Your task to perform on an android device: add a label to a message in the gmail app Image 0: 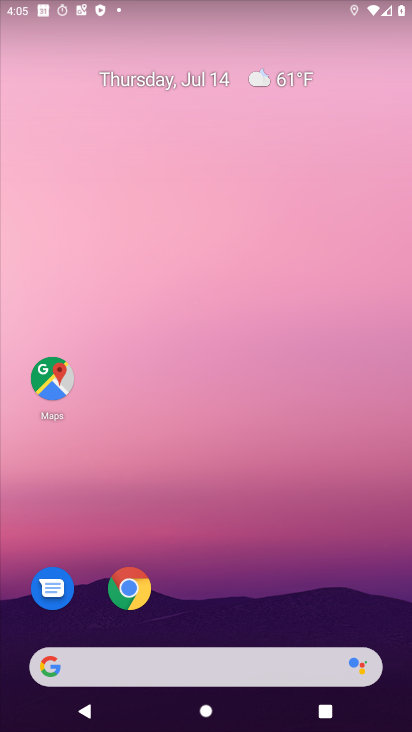
Step 0: drag from (207, 664) to (256, 185)
Your task to perform on an android device: add a label to a message in the gmail app Image 1: 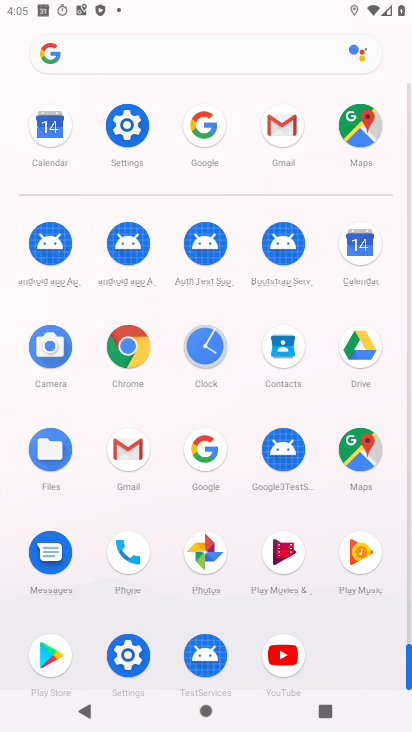
Step 1: click (283, 122)
Your task to perform on an android device: add a label to a message in the gmail app Image 2: 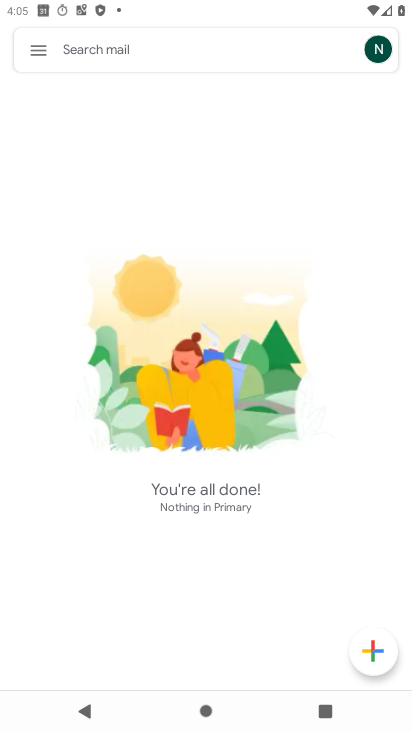
Step 2: click (41, 52)
Your task to perform on an android device: add a label to a message in the gmail app Image 3: 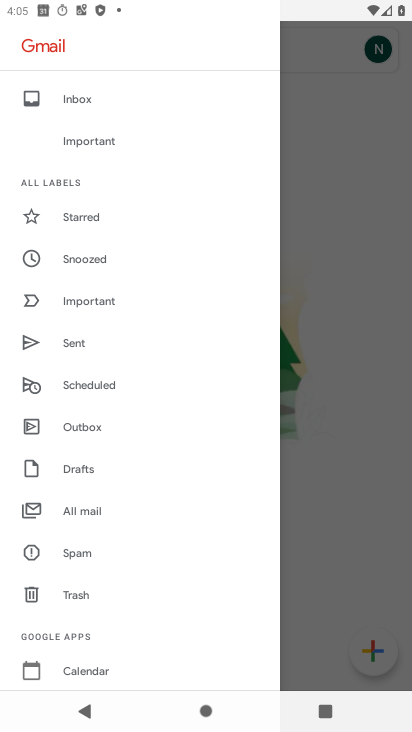
Step 3: click (81, 100)
Your task to perform on an android device: add a label to a message in the gmail app Image 4: 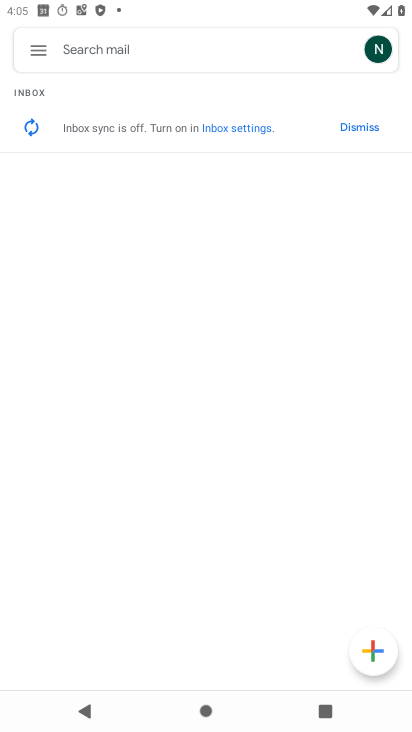
Step 4: click (34, 52)
Your task to perform on an android device: add a label to a message in the gmail app Image 5: 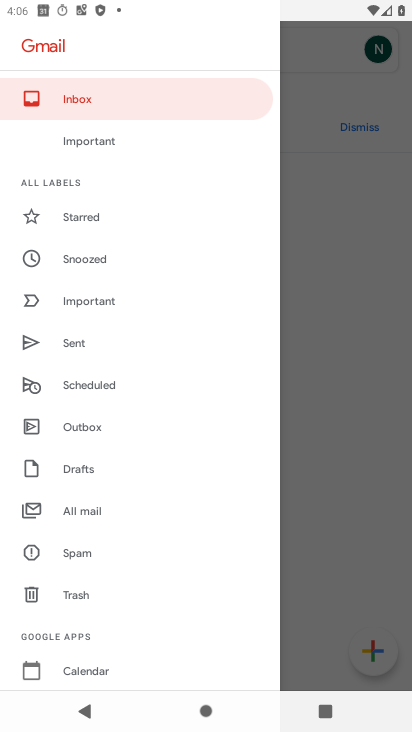
Step 5: click (79, 223)
Your task to perform on an android device: add a label to a message in the gmail app Image 6: 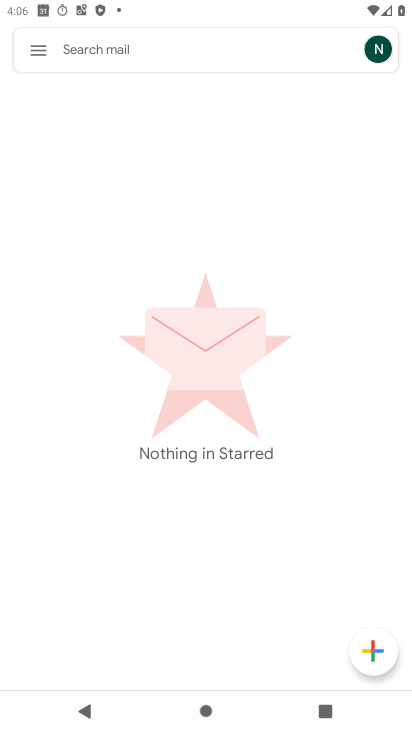
Step 6: click (35, 49)
Your task to perform on an android device: add a label to a message in the gmail app Image 7: 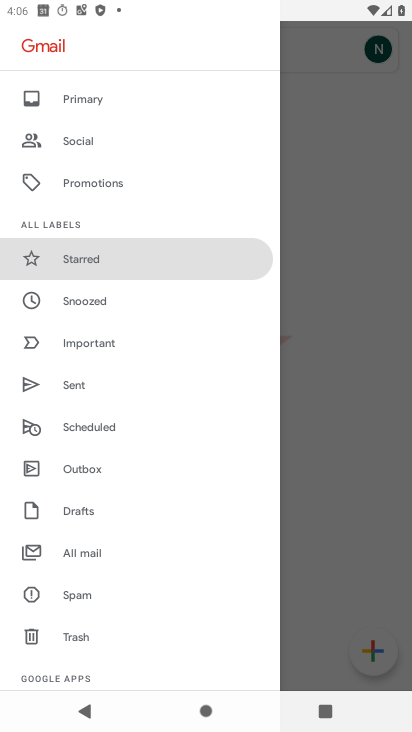
Step 7: click (69, 308)
Your task to perform on an android device: add a label to a message in the gmail app Image 8: 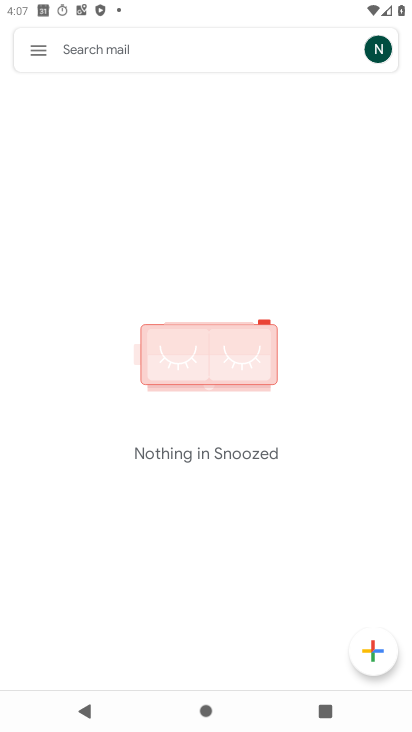
Step 8: click (28, 51)
Your task to perform on an android device: add a label to a message in the gmail app Image 9: 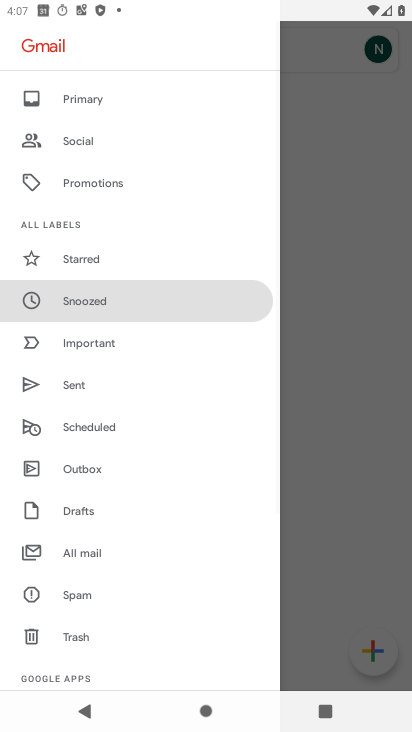
Step 9: click (102, 341)
Your task to perform on an android device: add a label to a message in the gmail app Image 10: 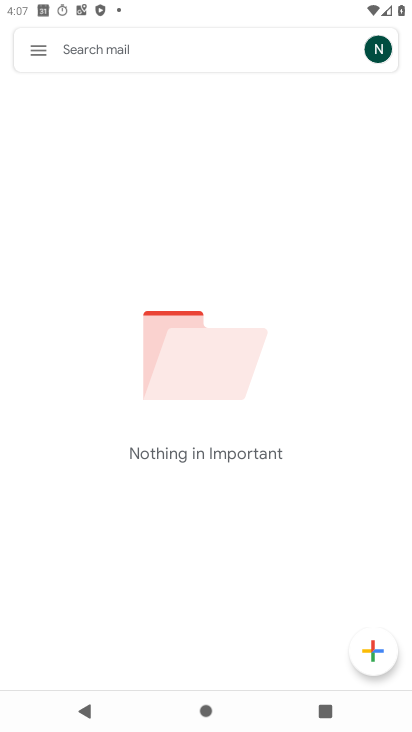
Step 10: click (38, 59)
Your task to perform on an android device: add a label to a message in the gmail app Image 11: 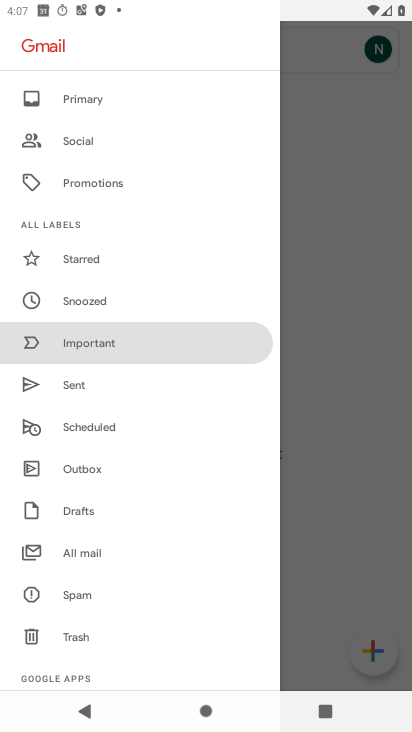
Step 11: click (68, 377)
Your task to perform on an android device: add a label to a message in the gmail app Image 12: 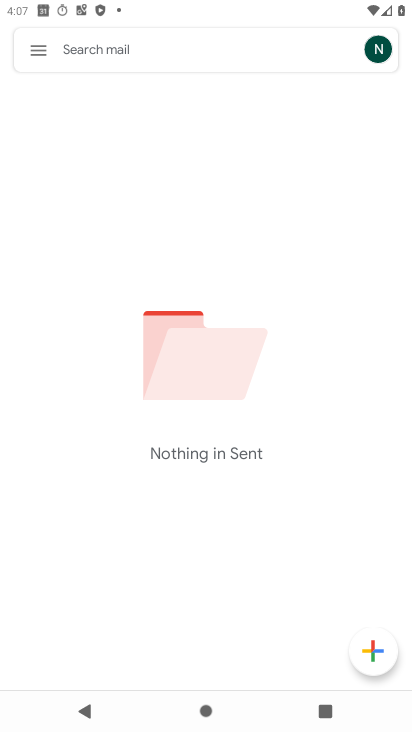
Step 12: click (33, 56)
Your task to perform on an android device: add a label to a message in the gmail app Image 13: 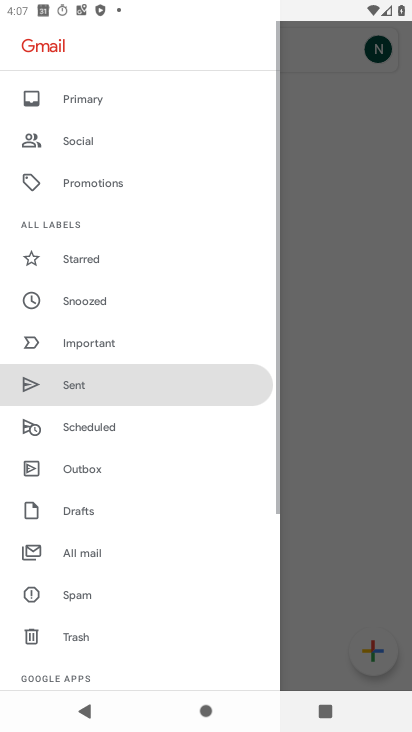
Step 13: click (81, 473)
Your task to perform on an android device: add a label to a message in the gmail app Image 14: 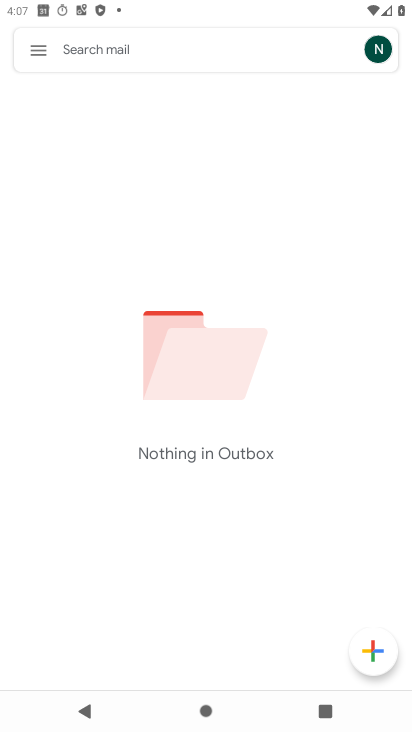
Step 14: task complete